Your task to perform on an android device: choose inbox layout in the gmail app Image 0: 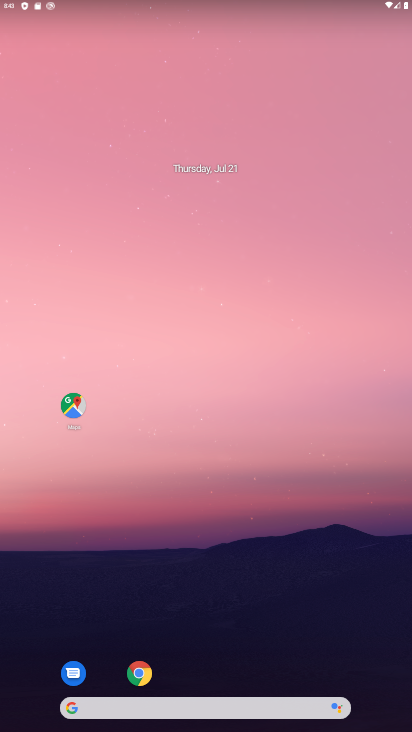
Step 0: drag from (356, 611) to (284, 213)
Your task to perform on an android device: choose inbox layout in the gmail app Image 1: 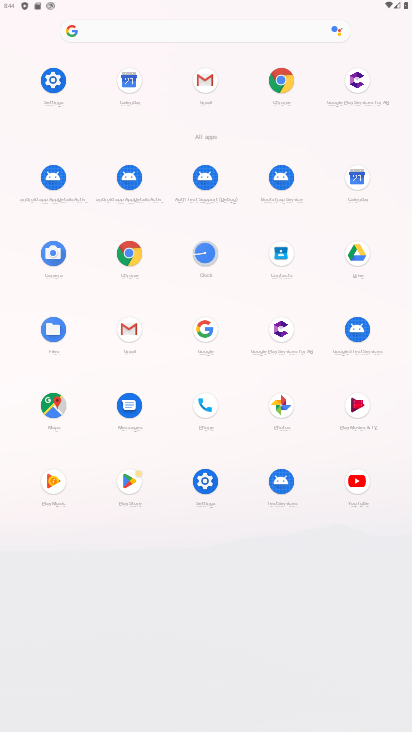
Step 1: click (124, 334)
Your task to perform on an android device: choose inbox layout in the gmail app Image 2: 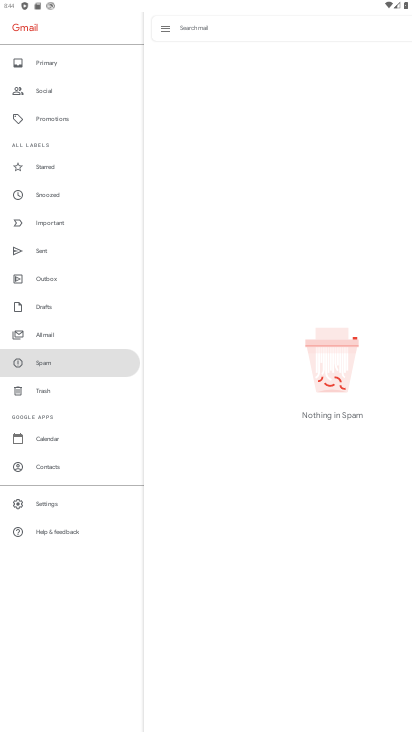
Step 2: click (58, 500)
Your task to perform on an android device: choose inbox layout in the gmail app Image 3: 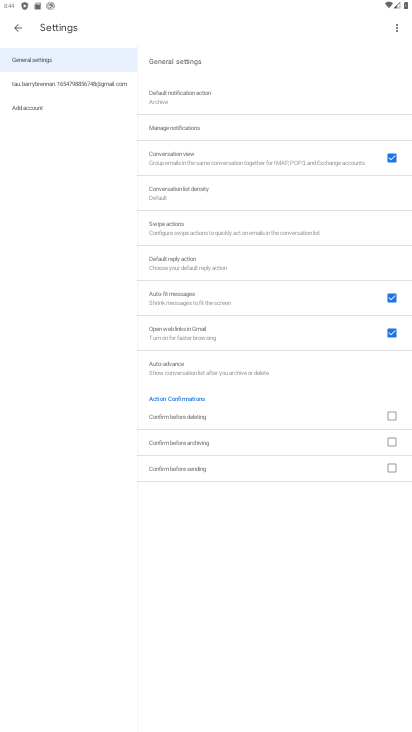
Step 3: click (70, 84)
Your task to perform on an android device: choose inbox layout in the gmail app Image 4: 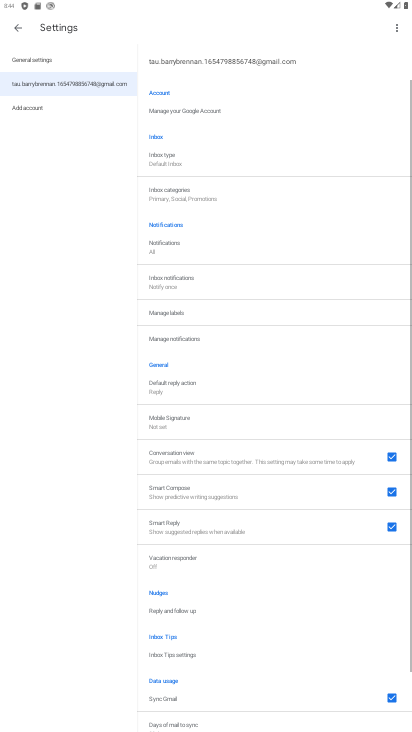
Step 4: click (70, 84)
Your task to perform on an android device: choose inbox layout in the gmail app Image 5: 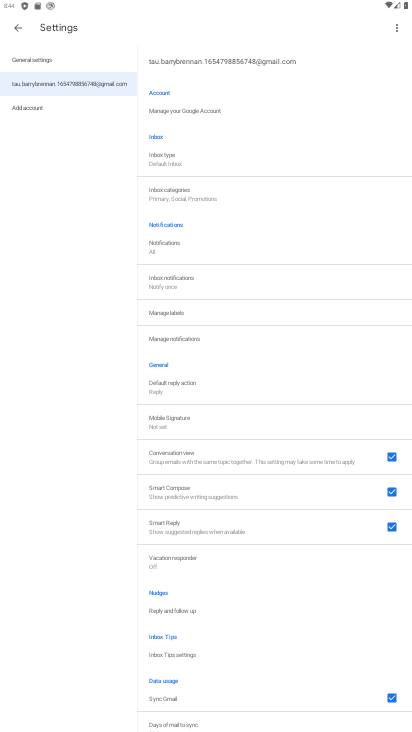
Step 5: click (218, 156)
Your task to perform on an android device: choose inbox layout in the gmail app Image 6: 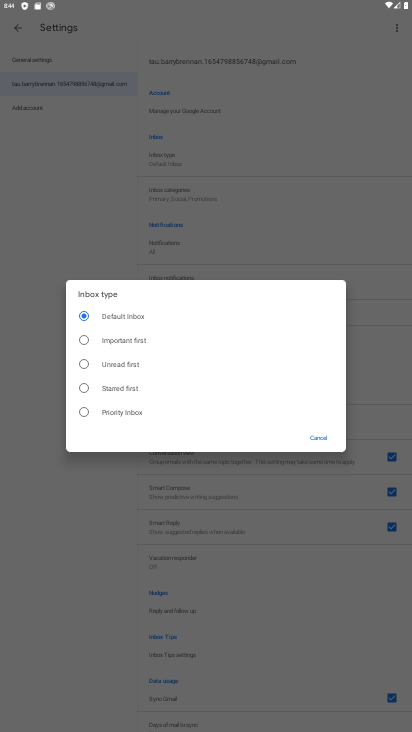
Step 6: click (92, 408)
Your task to perform on an android device: choose inbox layout in the gmail app Image 7: 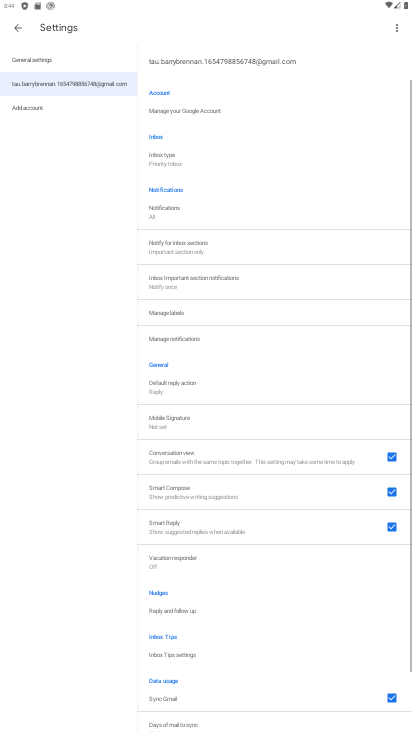
Step 7: task complete